Your task to perform on an android device: change the clock style Image 0: 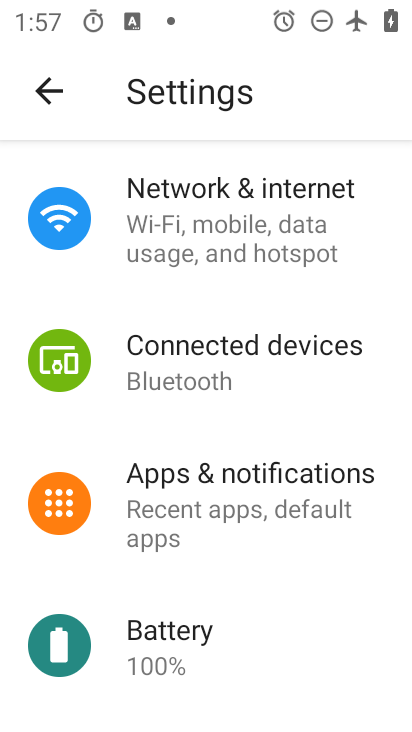
Step 0: press home button
Your task to perform on an android device: change the clock style Image 1: 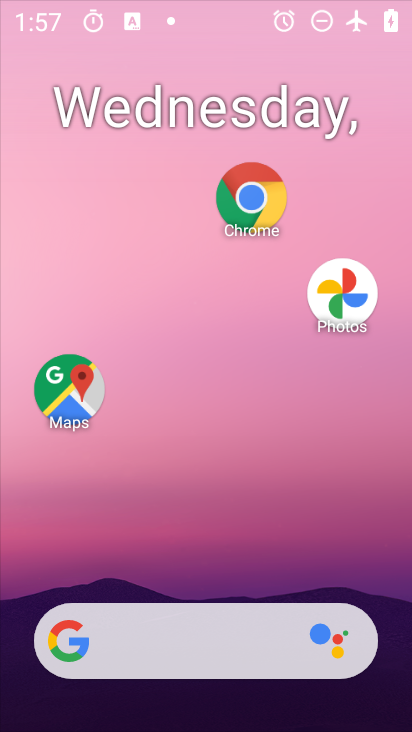
Step 1: drag from (215, 709) to (224, 167)
Your task to perform on an android device: change the clock style Image 2: 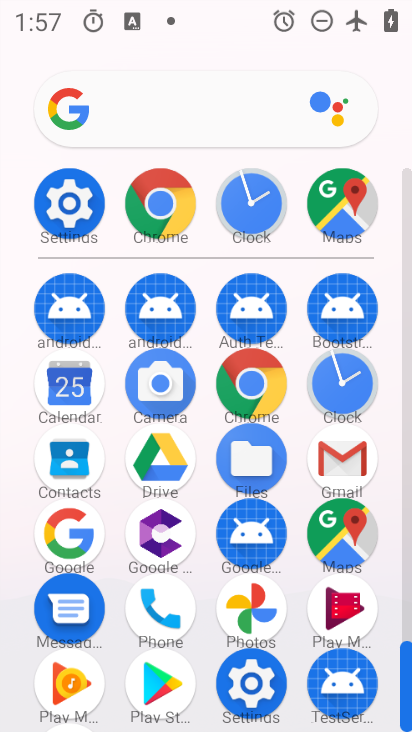
Step 2: click (347, 393)
Your task to perform on an android device: change the clock style Image 3: 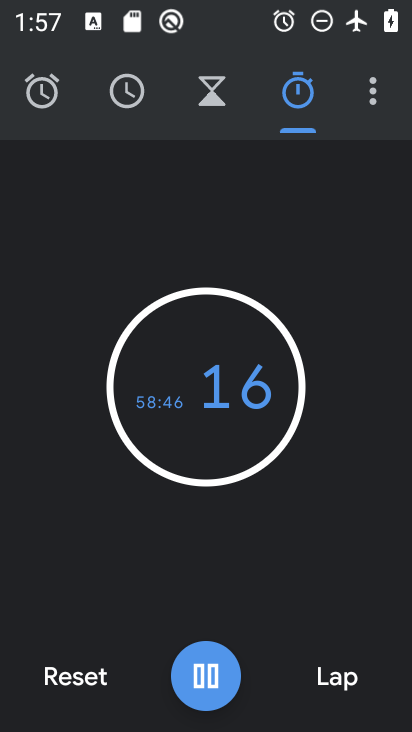
Step 3: click (381, 100)
Your task to perform on an android device: change the clock style Image 4: 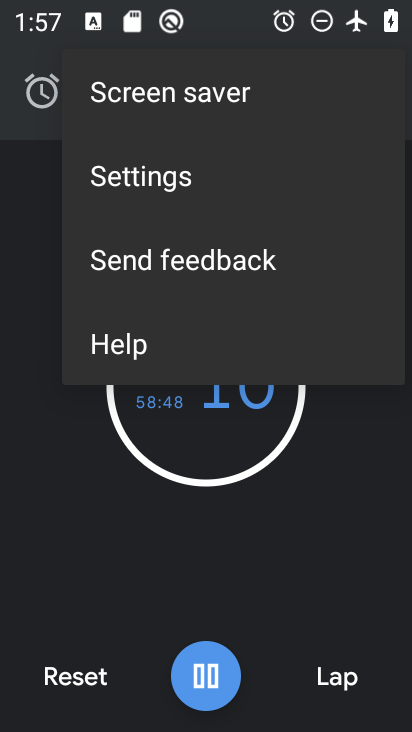
Step 4: click (200, 171)
Your task to perform on an android device: change the clock style Image 5: 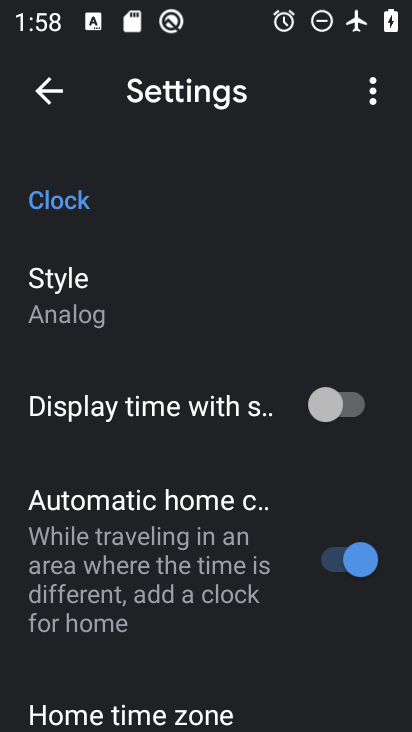
Step 5: click (110, 291)
Your task to perform on an android device: change the clock style Image 6: 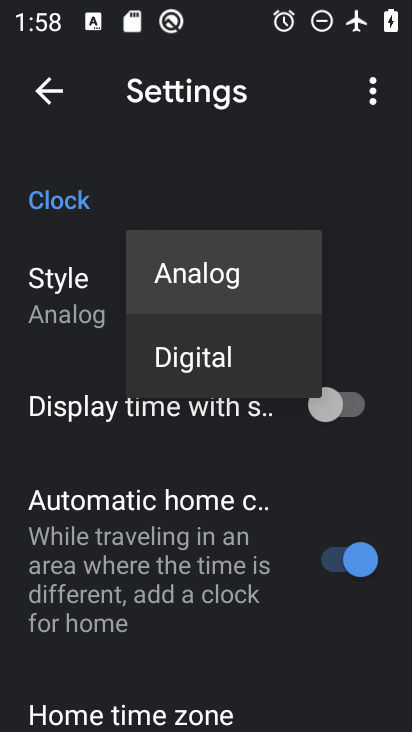
Step 6: click (218, 370)
Your task to perform on an android device: change the clock style Image 7: 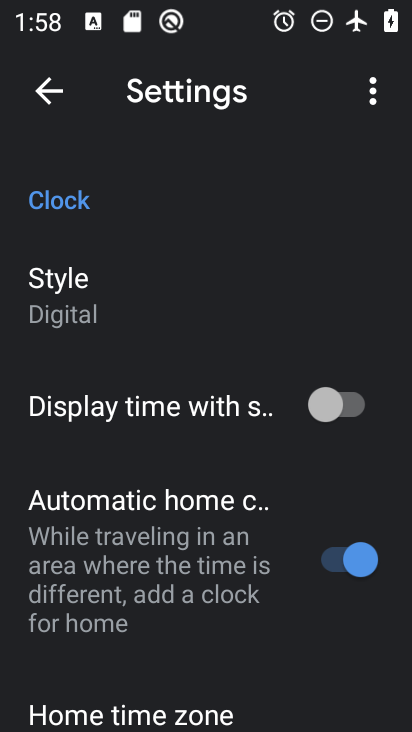
Step 7: task complete